Your task to perform on an android device: Open calendar and show me the fourth week of next month Image 0: 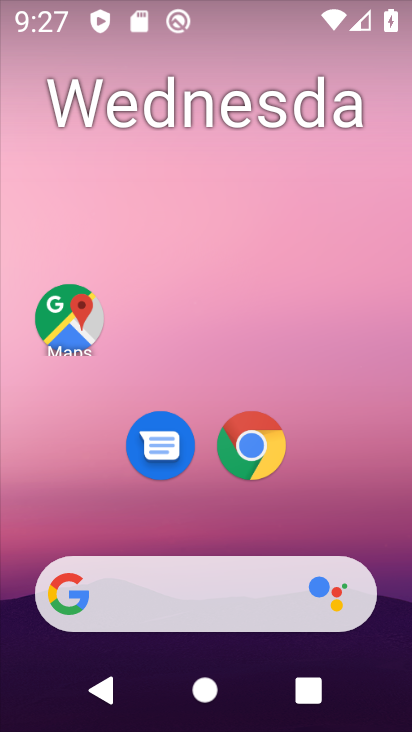
Step 0: drag from (158, 492) to (262, 38)
Your task to perform on an android device: Open calendar and show me the fourth week of next month Image 1: 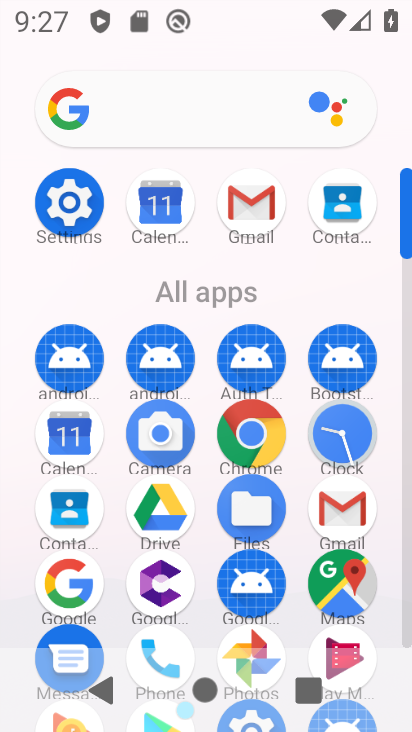
Step 1: click (160, 200)
Your task to perform on an android device: Open calendar and show me the fourth week of next month Image 2: 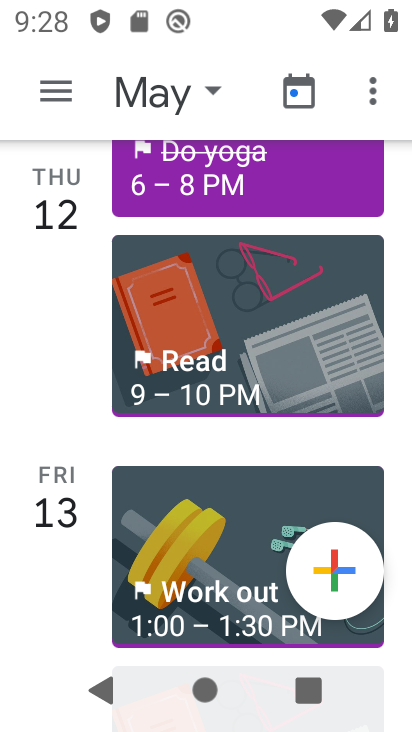
Step 2: click (199, 86)
Your task to perform on an android device: Open calendar and show me the fourth week of next month Image 3: 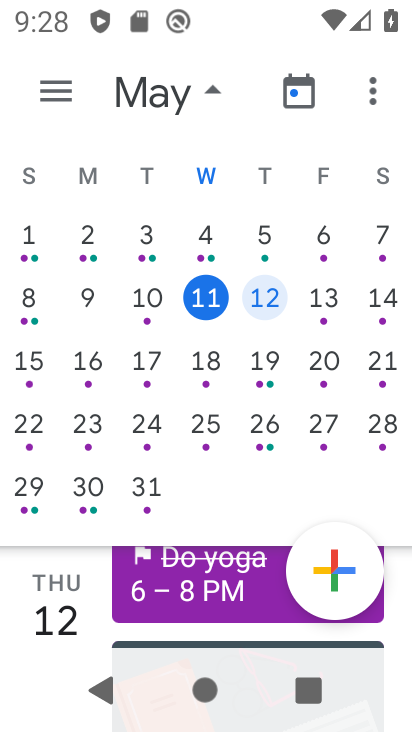
Step 3: drag from (365, 317) to (30, 326)
Your task to perform on an android device: Open calendar and show me the fourth week of next month Image 4: 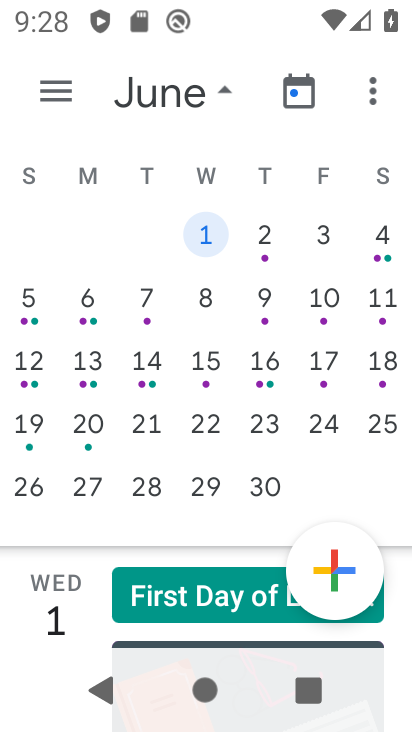
Step 4: click (83, 412)
Your task to perform on an android device: Open calendar and show me the fourth week of next month Image 5: 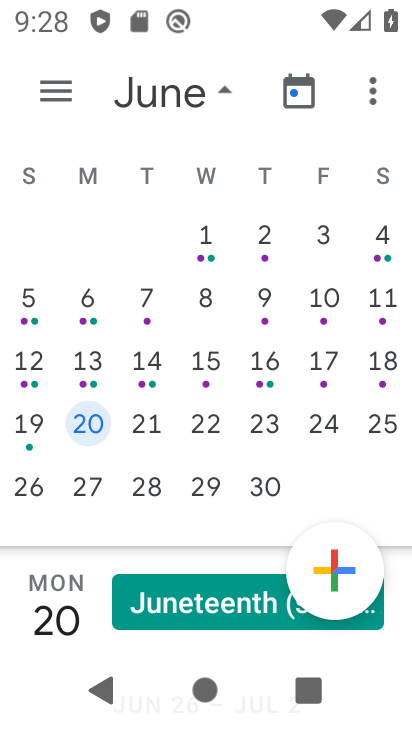
Step 5: task complete